Your task to perform on an android device: change your default location settings in chrome Image 0: 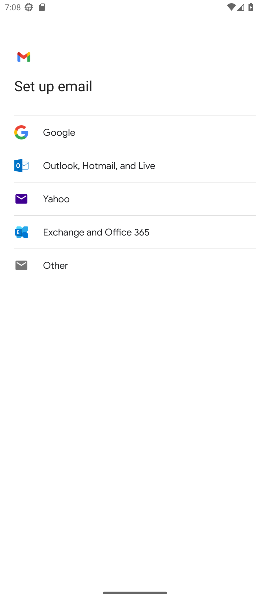
Step 0: press home button
Your task to perform on an android device: change your default location settings in chrome Image 1: 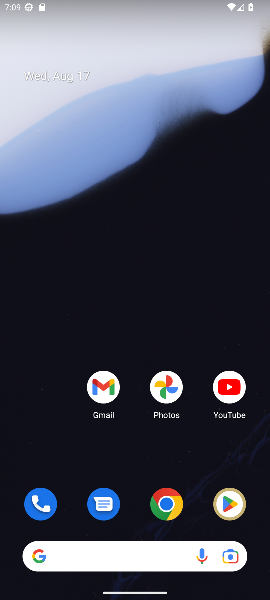
Step 1: drag from (115, 402) to (102, 84)
Your task to perform on an android device: change your default location settings in chrome Image 2: 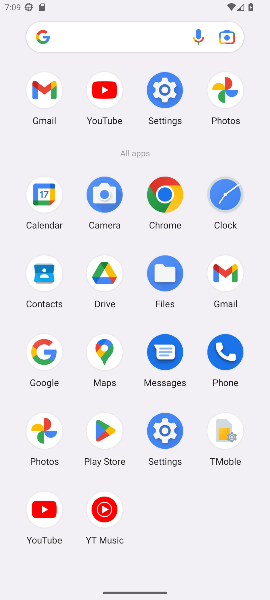
Step 2: click (173, 196)
Your task to perform on an android device: change your default location settings in chrome Image 3: 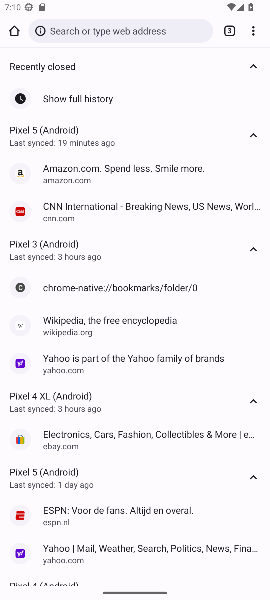
Step 3: click (257, 32)
Your task to perform on an android device: change your default location settings in chrome Image 4: 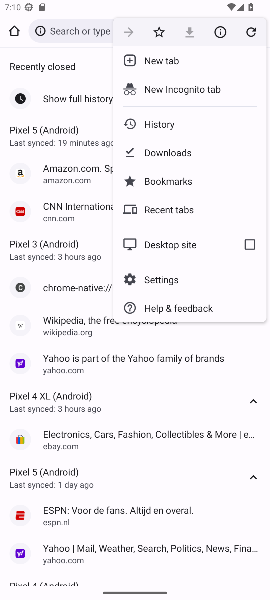
Step 4: click (161, 283)
Your task to perform on an android device: change your default location settings in chrome Image 5: 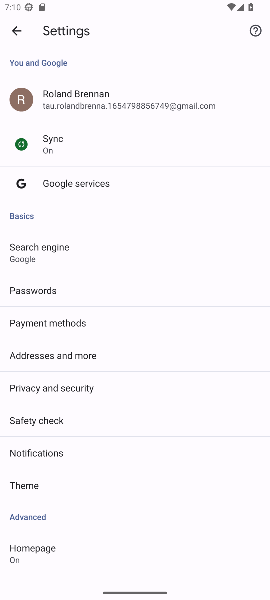
Step 5: drag from (67, 428) to (106, 127)
Your task to perform on an android device: change your default location settings in chrome Image 6: 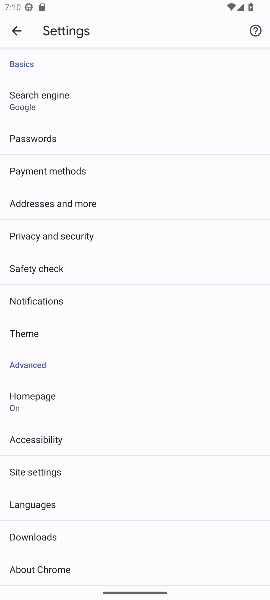
Step 6: click (84, 469)
Your task to perform on an android device: change your default location settings in chrome Image 7: 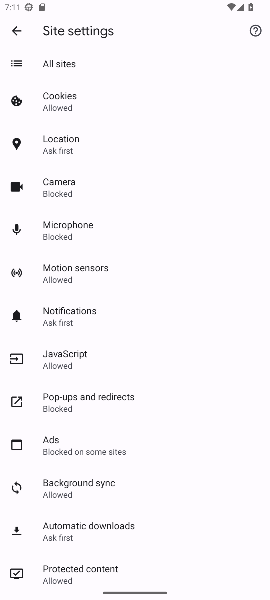
Step 7: click (115, 153)
Your task to perform on an android device: change your default location settings in chrome Image 8: 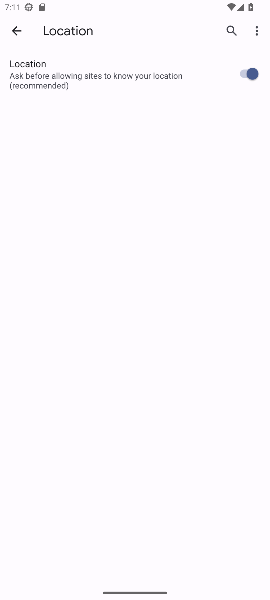
Step 8: click (253, 70)
Your task to perform on an android device: change your default location settings in chrome Image 9: 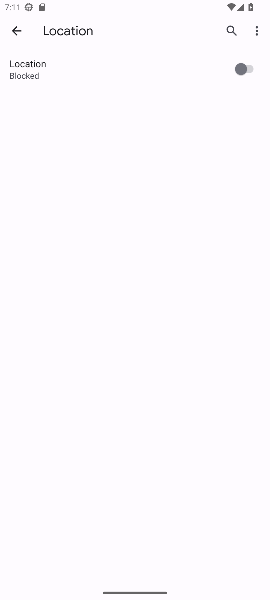
Step 9: task complete